Your task to perform on an android device: delete browsing data in the chrome app Image 0: 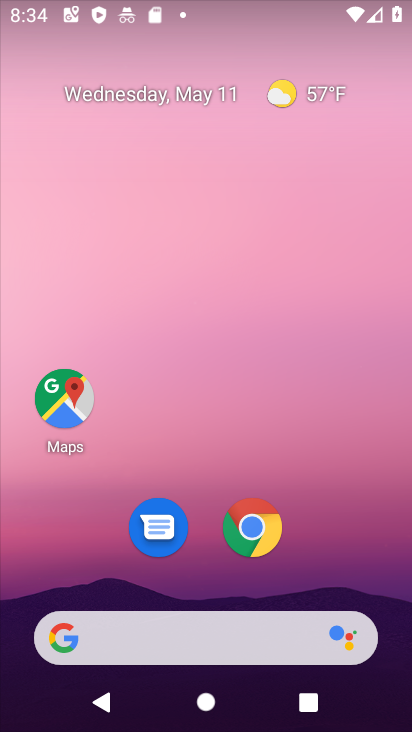
Step 0: click (248, 528)
Your task to perform on an android device: delete browsing data in the chrome app Image 1: 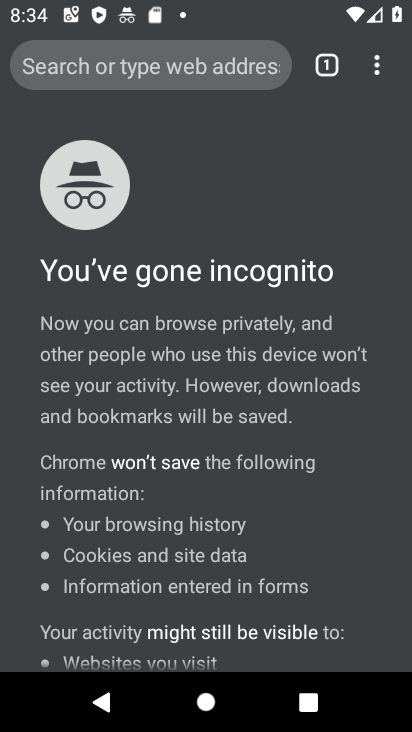
Step 1: click (377, 69)
Your task to perform on an android device: delete browsing data in the chrome app Image 2: 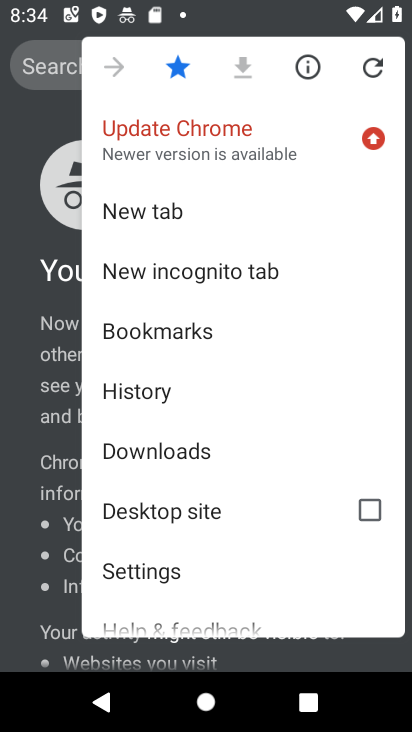
Step 2: click (161, 580)
Your task to perform on an android device: delete browsing data in the chrome app Image 3: 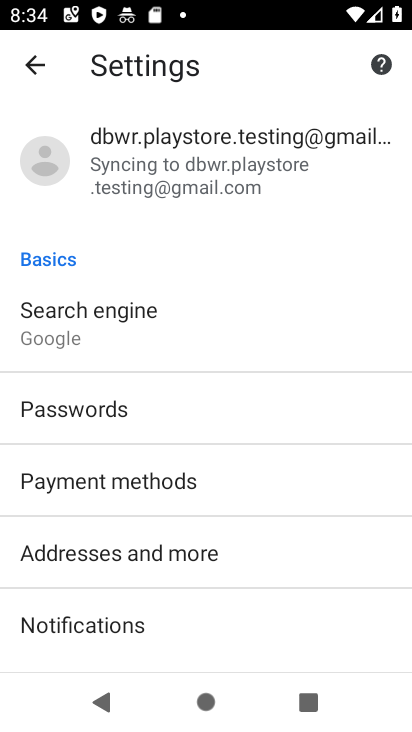
Step 3: drag from (176, 586) to (163, 226)
Your task to perform on an android device: delete browsing data in the chrome app Image 4: 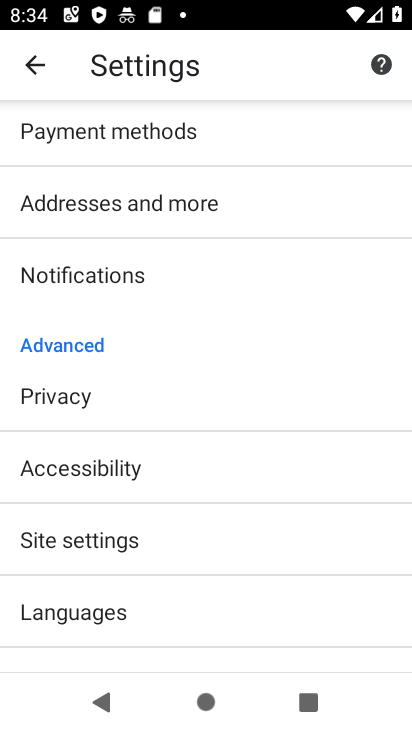
Step 4: click (112, 398)
Your task to perform on an android device: delete browsing data in the chrome app Image 5: 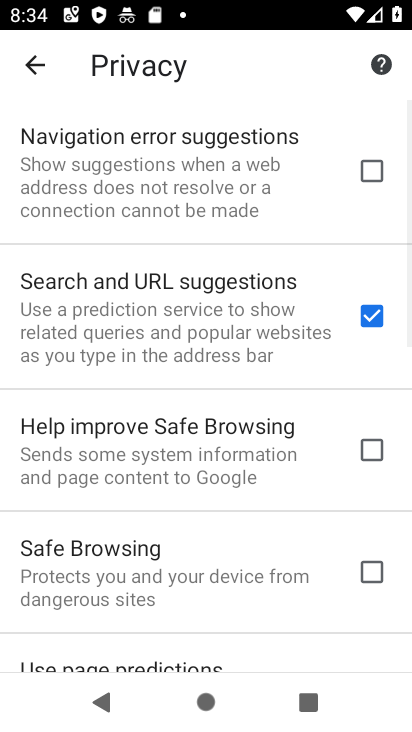
Step 5: drag from (198, 365) to (185, 88)
Your task to perform on an android device: delete browsing data in the chrome app Image 6: 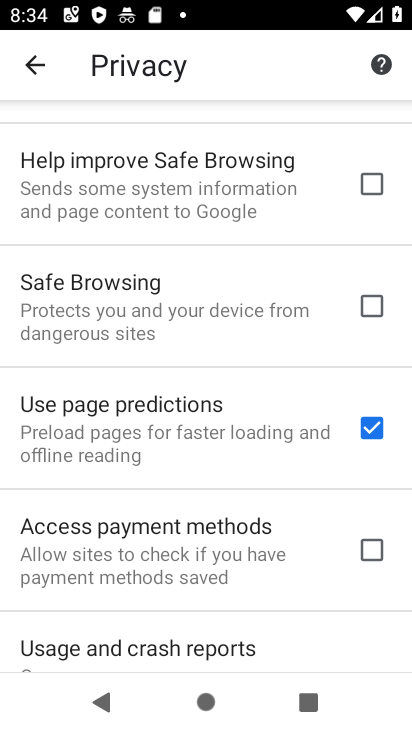
Step 6: drag from (182, 329) to (172, 53)
Your task to perform on an android device: delete browsing data in the chrome app Image 7: 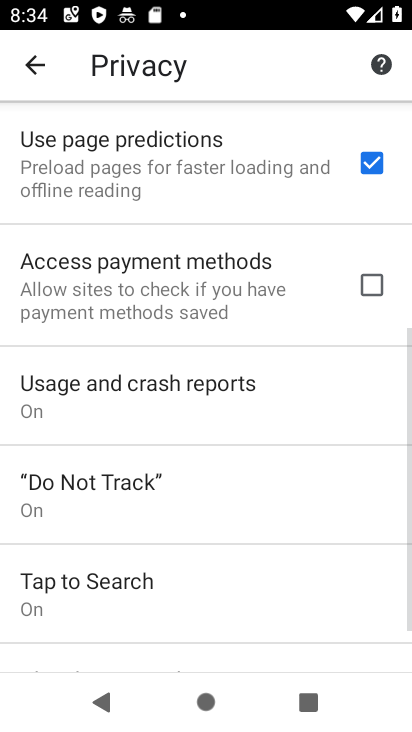
Step 7: drag from (183, 442) to (160, 182)
Your task to perform on an android device: delete browsing data in the chrome app Image 8: 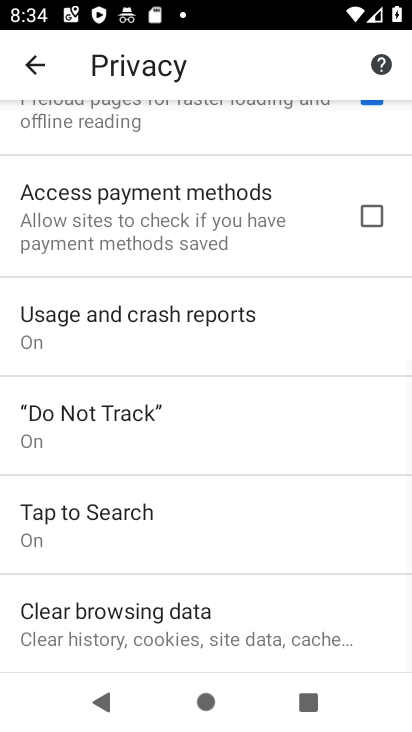
Step 8: click (167, 632)
Your task to perform on an android device: delete browsing data in the chrome app Image 9: 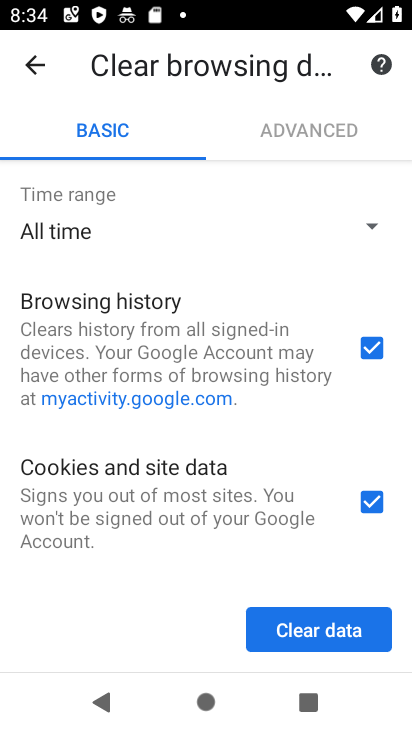
Step 9: click (368, 493)
Your task to perform on an android device: delete browsing data in the chrome app Image 10: 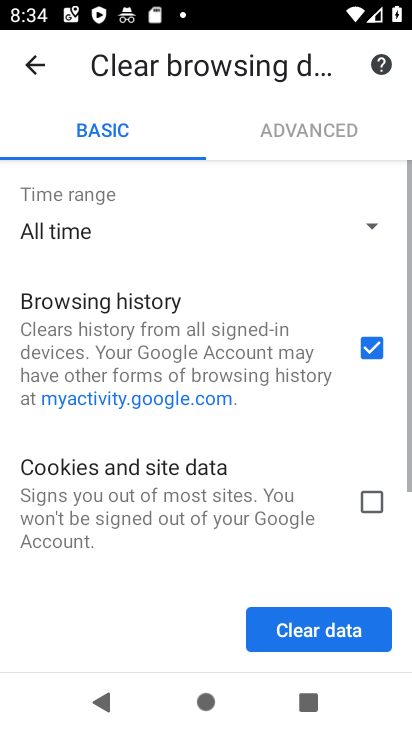
Step 10: drag from (242, 457) to (214, 175)
Your task to perform on an android device: delete browsing data in the chrome app Image 11: 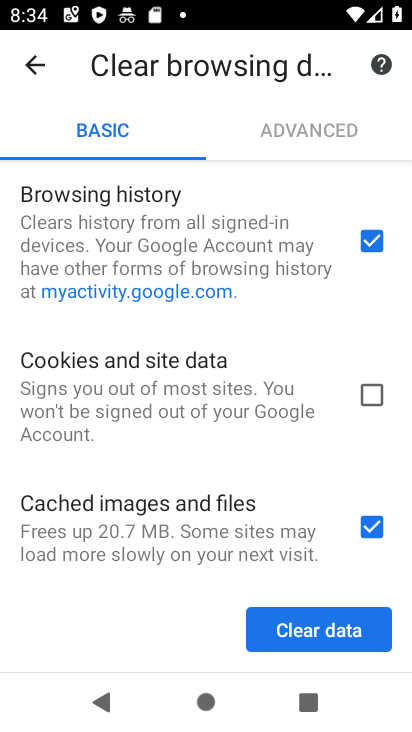
Step 11: click (373, 515)
Your task to perform on an android device: delete browsing data in the chrome app Image 12: 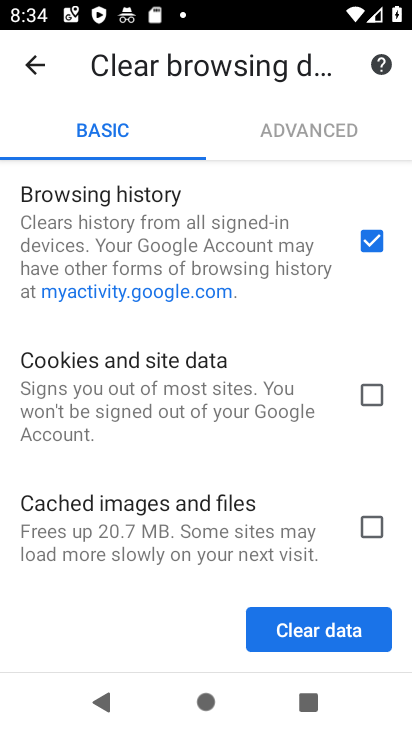
Step 12: click (318, 638)
Your task to perform on an android device: delete browsing data in the chrome app Image 13: 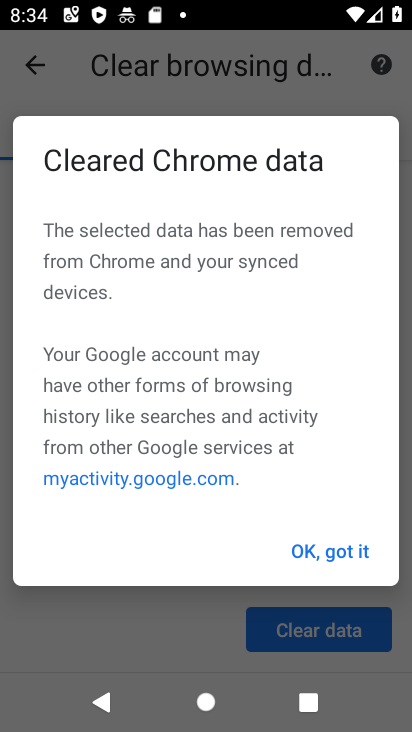
Step 13: click (363, 551)
Your task to perform on an android device: delete browsing data in the chrome app Image 14: 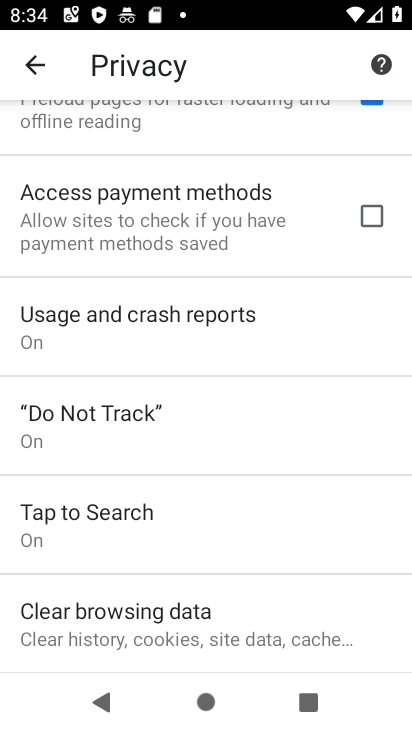
Step 14: task complete